Your task to perform on an android device: Open Chrome and go to settings Image 0: 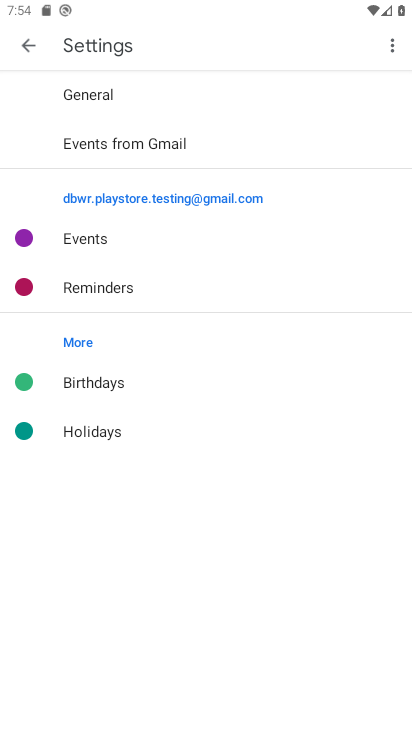
Step 0: press home button
Your task to perform on an android device: Open Chrome and go to settings Image 1: 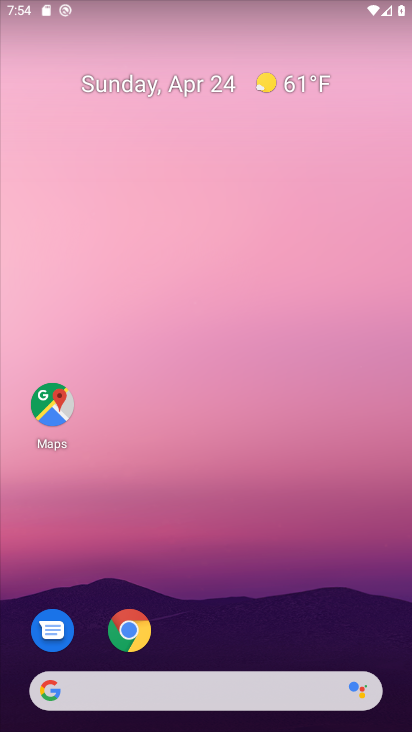
Step 1: drag from (297, 625) to (283, 67)
Your task to perform on an android device: Open Chrome and go to settings Image 2: 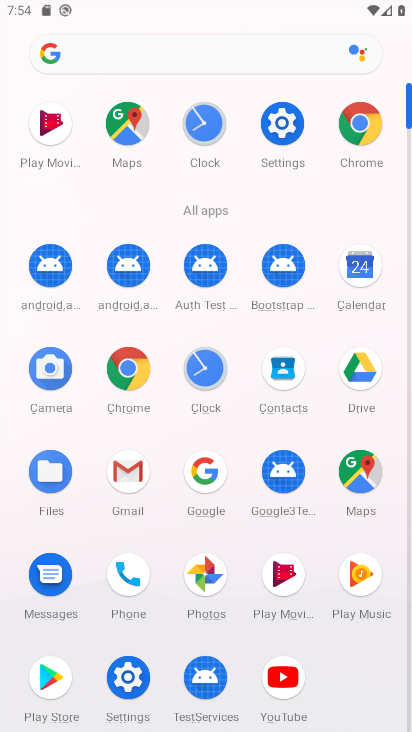
Step 2: click (363, 129)
Your task to perform on an android device: Open Chrome and go to settings Image 3: 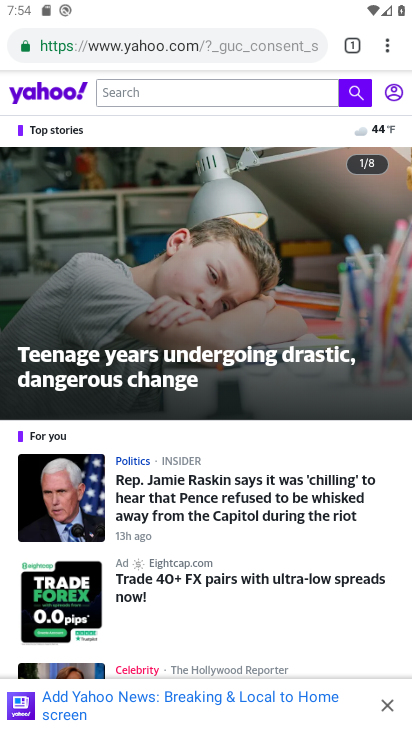
Step 3: press back button
Your task to perform on an android device: Open Chrome and go to settings Image 4: 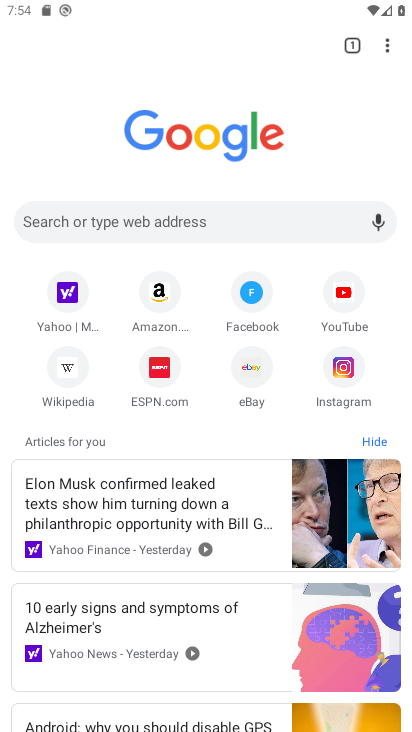
Step 4: click (386, 45)
Your task to perform on an android device: Open Chrome and go to settings Image 5: 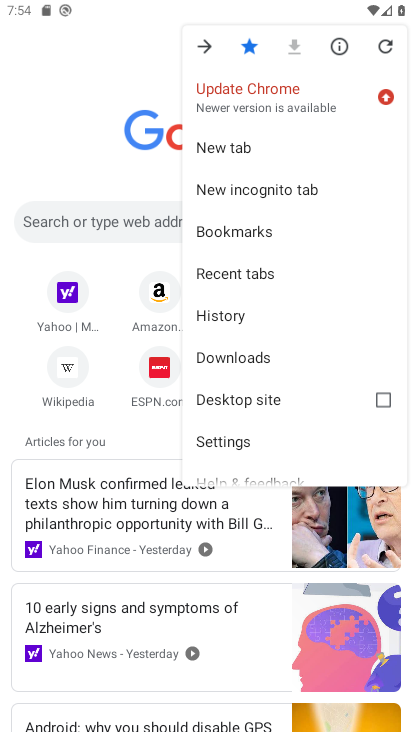
Step 5: drag from (329, 406) to (324, 226)
Your task to perform on an android device: Open Chrome and go to settings Image 6: 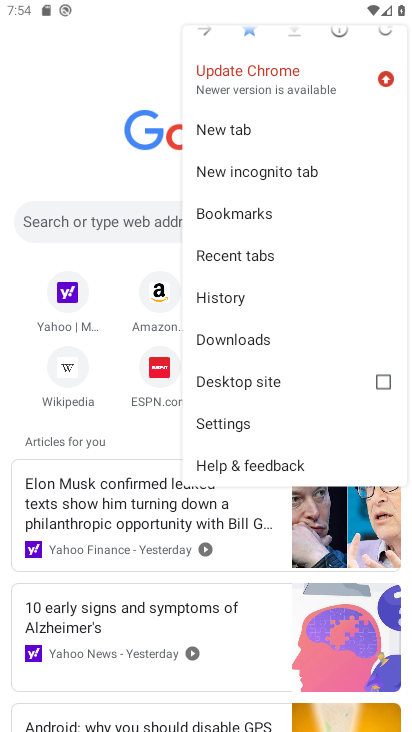
Step 6: click (235, 419)
Your task to perform on an android device: Open Chrome and go to settings Image 7: 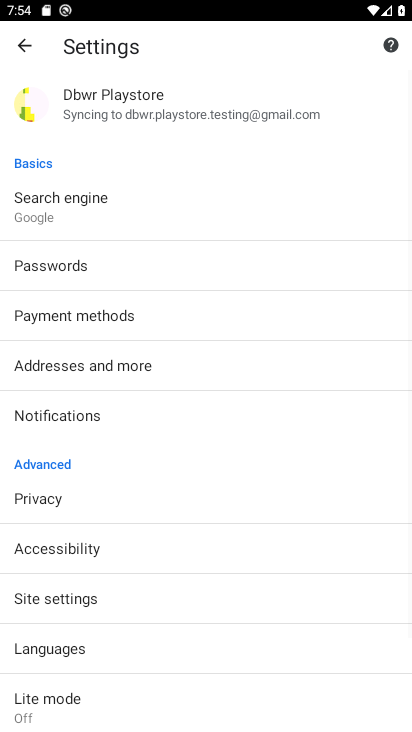
Step 7: task complete